Your task to perform on an android device: Clear the shopping cart on amazon.com. Search for "usb-b" on amazon.com, select the first entry, add it to the cart, then select checkout. Image 0: 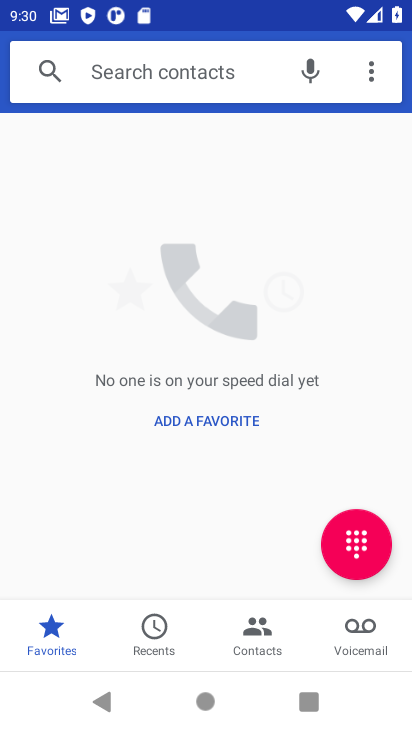
Step 0: press home button
Your task to perform on an android device: Clear the shopping cart on amazon.com. Search for "usb-b" on amazon.com, select the first entry, add it to the cart, then select checkout. Image 1: 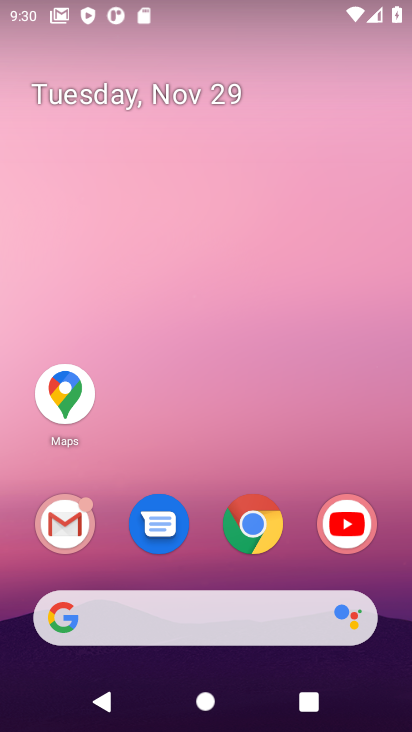
Step 1: click (244, 519)
Your task to perform on an android device: Clear the shopping cart on amazon.com. Search for "usb-b" on amazon.com, select the first entry, add it to the cart, then select checkout. Image 2: 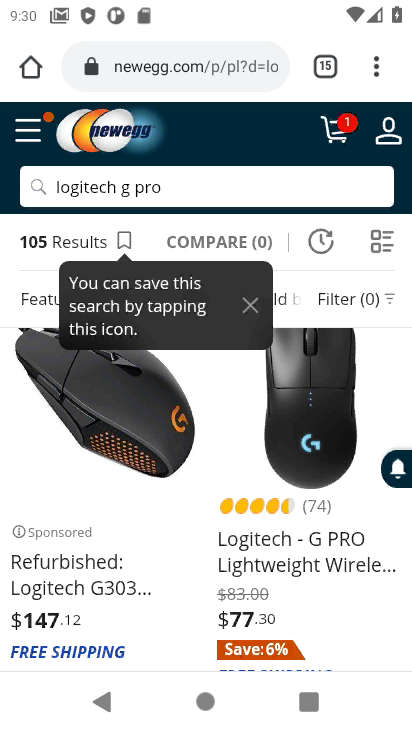
Step 2: click (180, 72)
Your task to perform on an android device: Clear the shopping cart on amazon.com. Search for "usb-b" on amazon.com, select the first entry, add it to the cart, then select checkout. Image 3: 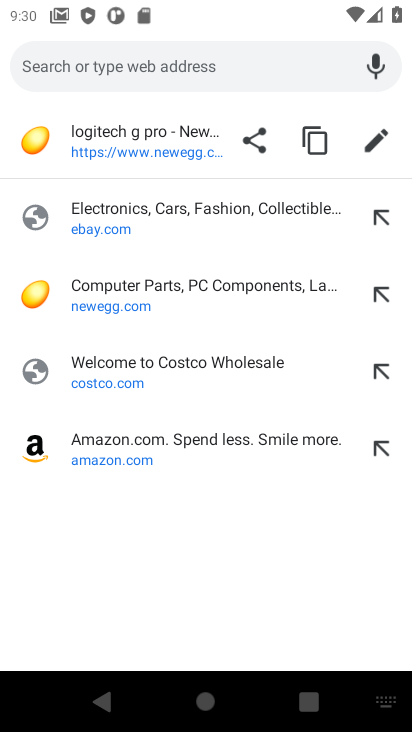
Step 3: click (103, 454)
Your task to perform on an android device: Clear the shopping cart on amazon.com. Search for "usb-b" on amazon.com, select the first entry, add it to the cart, then select checkout. Image 4: 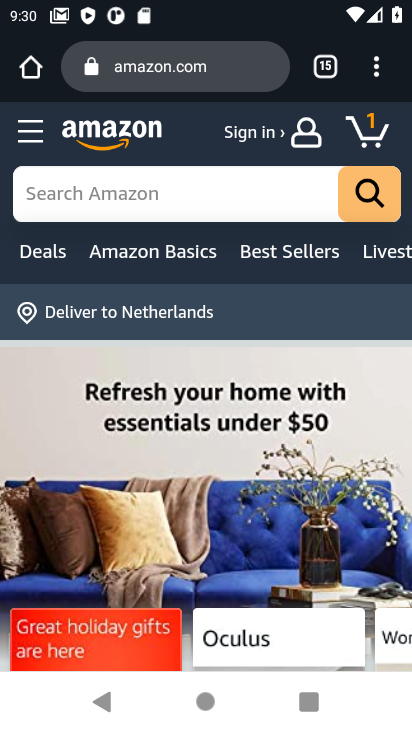
Step 4: click (367, 130)
Your task to perform on an android device: Clear the shopping cart on amazon.com. Search for "usb-b" on amazon.com, select the first entry, add it to the cart, then select checkout. Image 5: 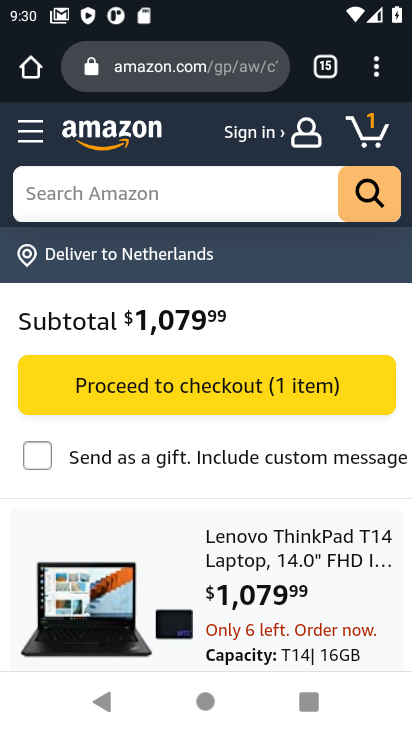
Step 5: drag from (215, 440) to (215, 188)
Your task to perform on an android device: Clear the shopping cart on amazon.com. Search for "usb-b" on amazon.com, select the first entry, add it to the cart, then select checkout. Image 6: 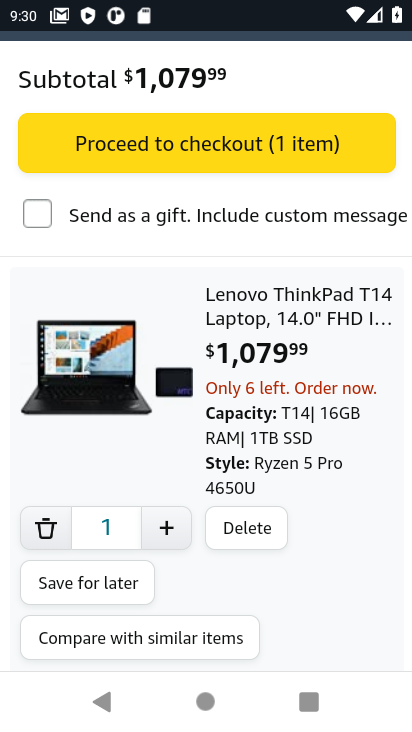
Step 6: click (47, 530)
Your task to perform on an android device: Clear the shopping cart on amazon.com. Search for "usb-b" on amazon.com, select the first entry, add it to the cart, then select checkout. Image 7: 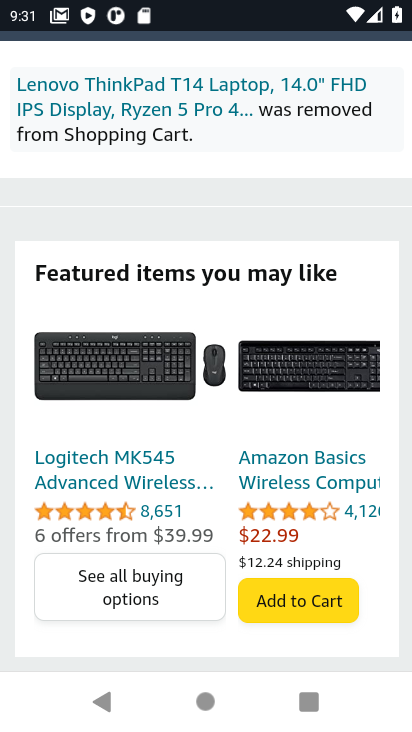
Step 7: drag from (286, 317) to (245, 476)
Your task to perform on an android device: Clear the shopping cart on amazon.com. Search for "usb-b" on amazon.com, select the first entry, add it to the cart, then select checkout. Image 8: 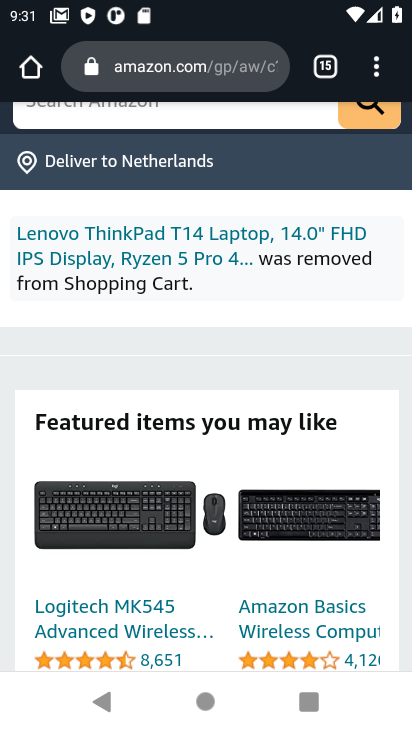
Step 8: drag from (155, 229) to (136, 386)
Your task to perform on an android device: Clear the shopping cart on amazon.com. Search for "usb-b" on amazon.com, select the first entry, add it to the cart, then select checkout. Image 9: 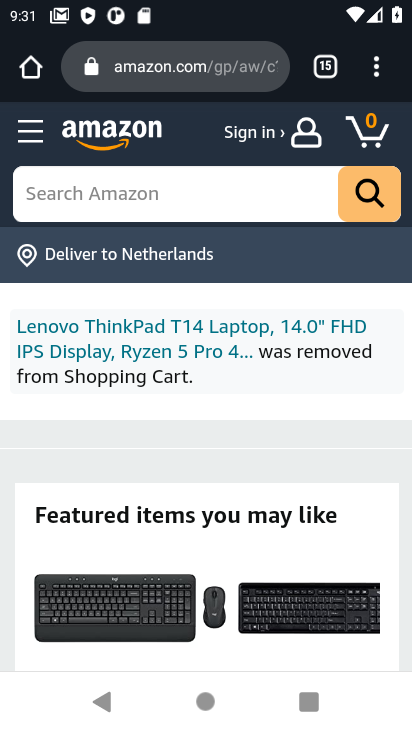
Step 9: click (86, 197)
Your task to perform on an android device: Clear the shopping cart on amazon.com. Search for "usb-b" on amazon.com, select the first entry, add it to the cart, then select checkout. Image 10: 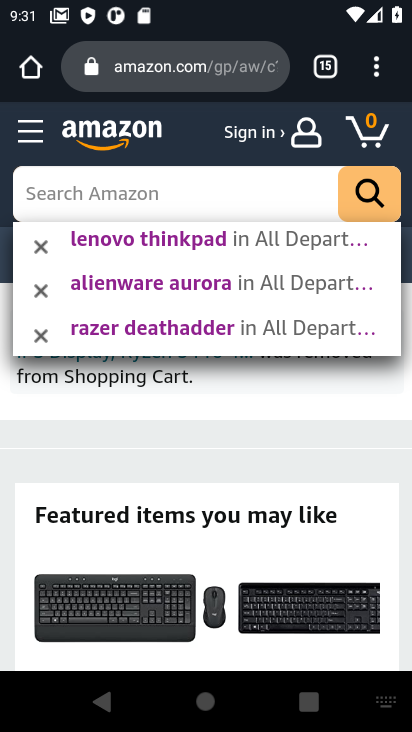
Step 10: type "usb-b"
Your task to perform on an android device: Clear the shopping cart on amazon.com. Search for "usb-b" on amazon.com, select the first entry, add it to the cart, then select checkout. Image 11: 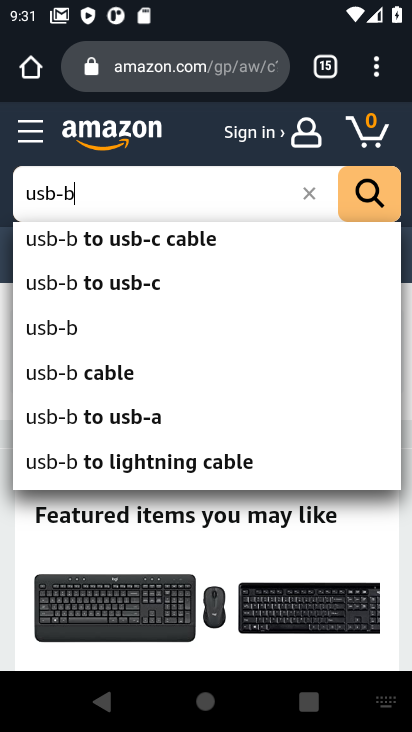
Step 11: click (42, 330)
Your task to perform on an android device: Clear the shopping cart on amazon.com. Search for "usb-b" on amazon.com, select the first entry, add it to the cart, then select checkout. Image 12: 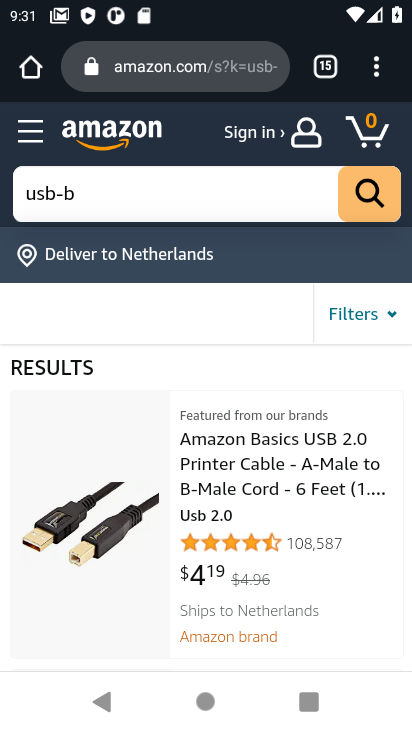
Step 12: drag from (123, 565) to (151, 406)
Your task to perform on an android device: Clear the shopping cart on amazon.com. Search for "usb-b" on amazon.com, select the first entry, add it to the cart, then select checkout. Image 13: 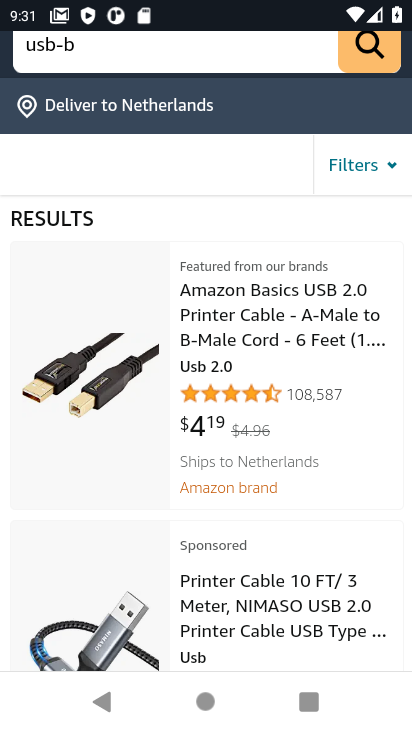
Step 13: click (215, 333)
Your task to perform on an android device: Clear the shopping cart on amazon.com. Search for "usb-b" on amazon.com, select the first entry, add it to the cart, then select checkout. Image 14: 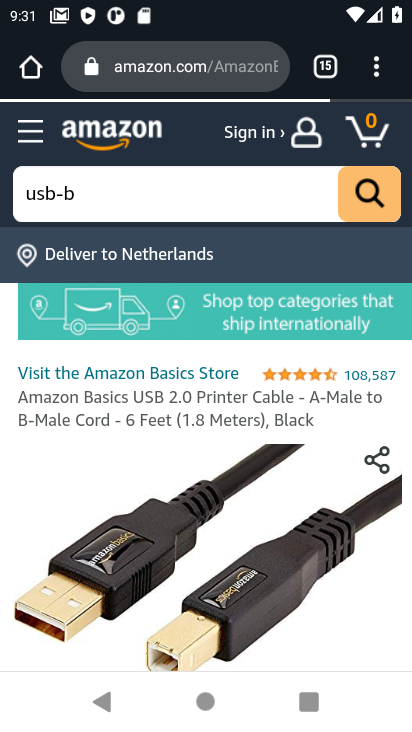
Step 14: drag from (192, 594) to (205, 395)
Your task to perform on an android device: Clear the shopping cart on amazon.com. Search for "usb-b" on amazon.com, select the first entry, add it to the cart, then select checkout. Image 15: 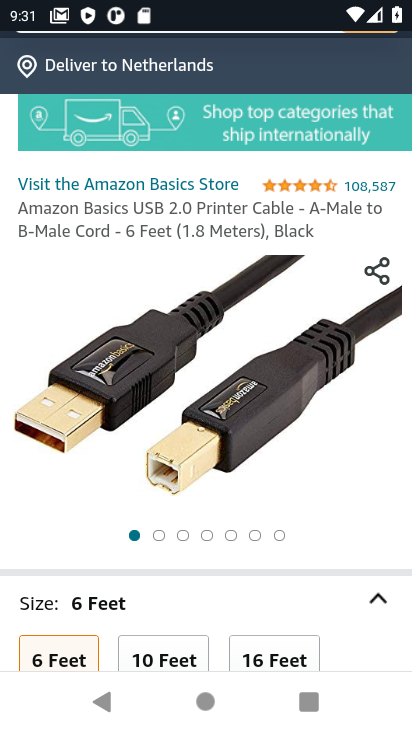
Step 15: drag from (156, 556) to (168, 333)
Your task to perform on an android device: Clear the shopping cart on amazon.com. Search for "usb-b" on amazon.com, select the first entry, add it to the cart, then select checkout. Image 16: 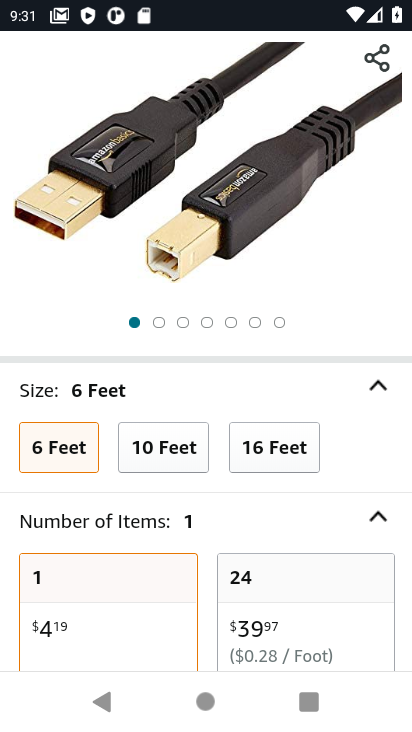
Step 16: drag from (154, 288) to (154, 119)
Your task to perform on an android device: Clear the shopping cart on amazon.com. Search for "usb-b" on amazon.com, select the first entry, add it to the cart, then select checkout. Image 17: 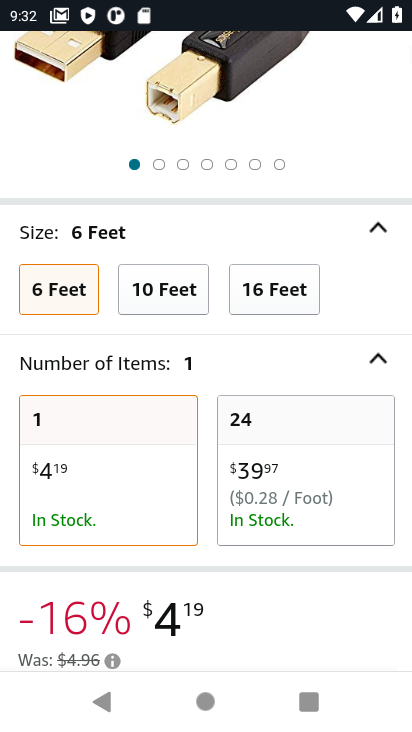
Step 17: drag from (162, 508) to (121, 198)
Your task to perform on an android device: Clear the shopping cart on amazon.com. Search for "usb-b" on amazon.com, select the first entry, add it to the cart, then select checkout. Image 18: 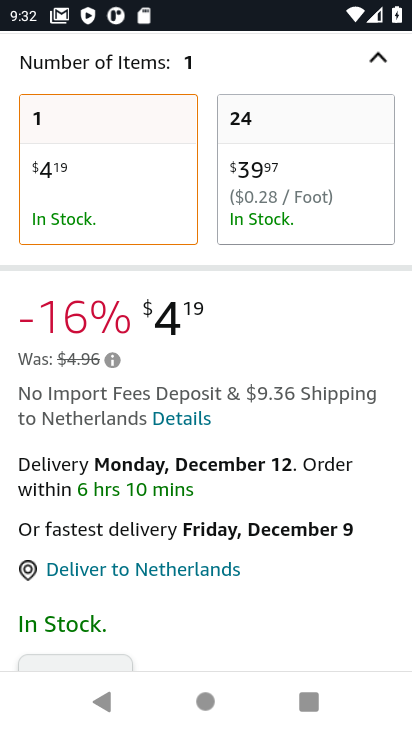
Step 18: drag from (124, 448) to (128, 178)
Your task to perform on an android device: Clear the shopping cart on amazon.com. Search for "usb-b" on amazon.com, select the first entry, add it to the cart, then select checkout. Image 19: 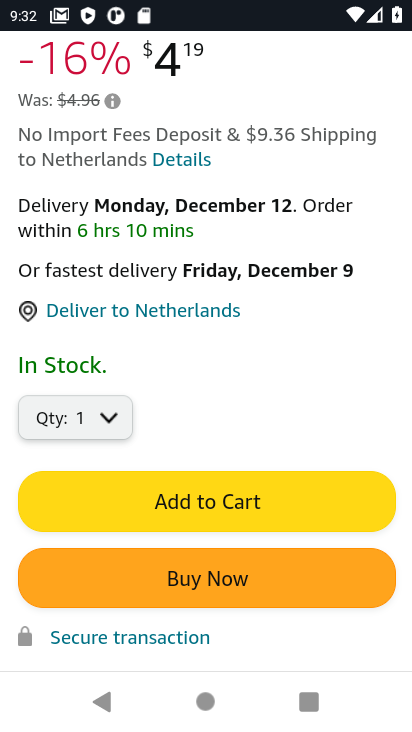
Step 19: click (146, 496)
Your task to perform on an android device: Clear the shopping cart on amazon.com. Search for "usb-b" on amazon.com, select the first entry, add it to the cart, then select checkout. Image 20: 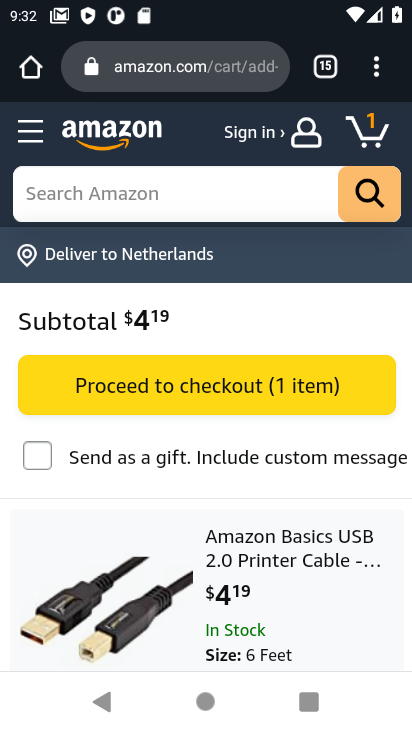
Step 20: click (192, 402)
Your task to perform on an android device: Clear the shopping cart on amazon.com. Search for "usb-b" on amazon.com, select the first entry, add it to the cart, then select checkout. Image 21: 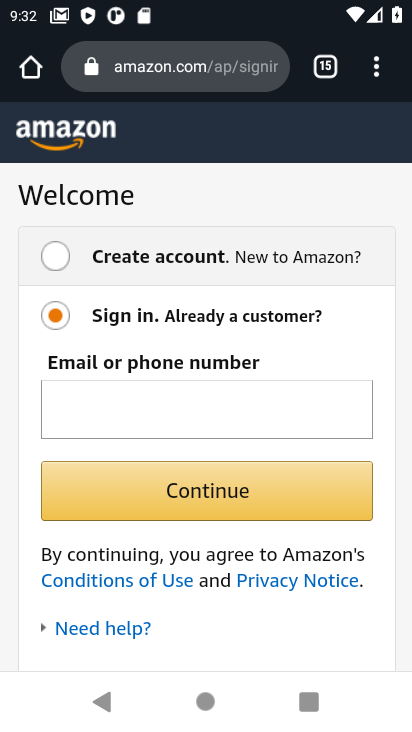
Step 21: task complete